Your task to perform on an android device: toggle data saver in the chrome app Image 0: 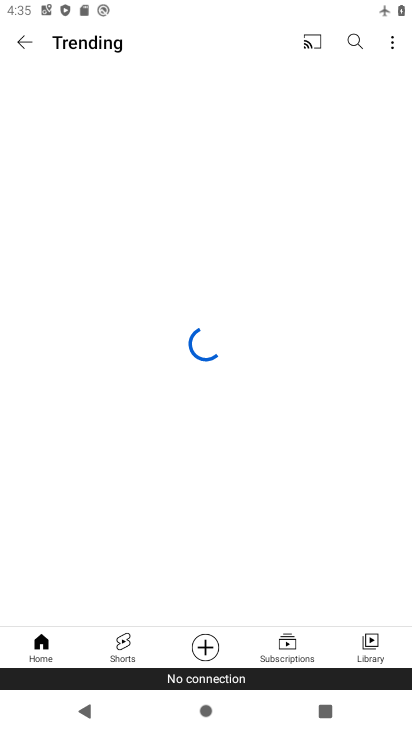
Step 0: press back button
Your task to perform on an android device: toggle data saver in the chrome app Image 1: 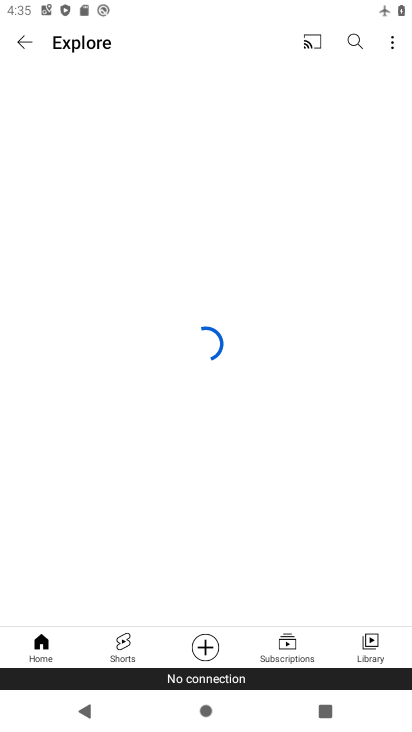
Step 1: press home button
Your task to perform on an android device: toggle data saver in the chrome app Image 2: 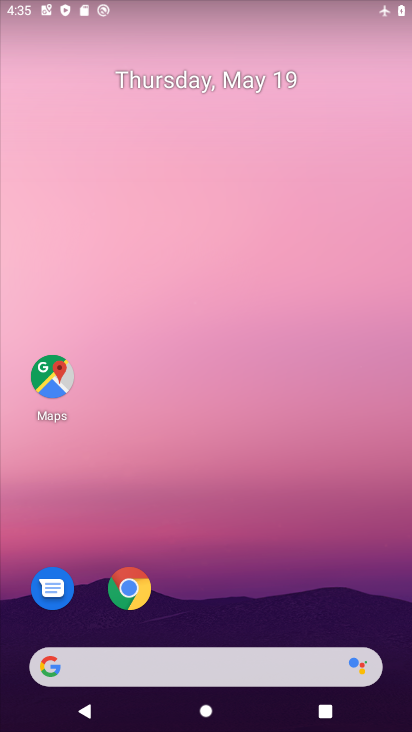
Step 2: click (145, 587)
Your task to perform on an android device: toggle data saver in the chrome app Image 3: 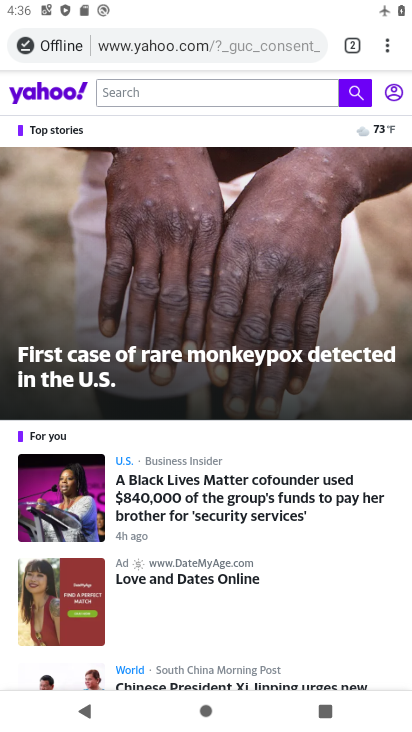
Step 3: click (383, 45)
Your task to perform on an android device: toggle data saver in the chrome app Image 4: 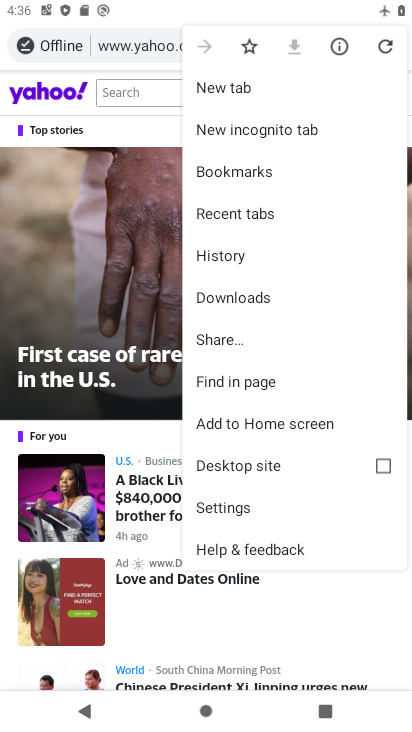
Step 4: click (234, 502)
Your task to perform on an android device: toggle data saver in the chrome app Image 5: 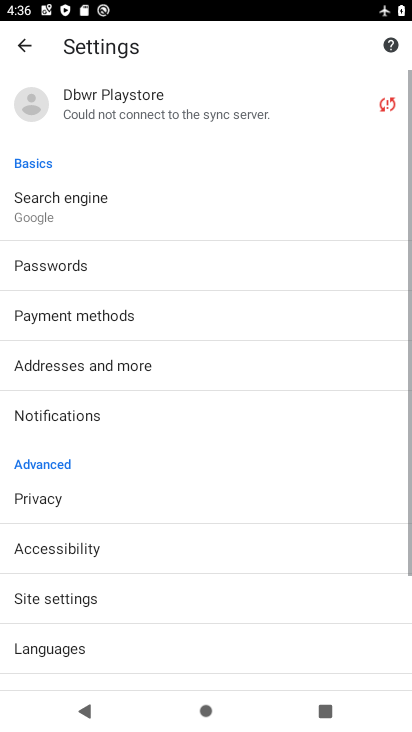
Step 5: drag from (159, 619) to (212, 403)
Your task to perform on an android device: toggle data saver in the chrome app Image 6: 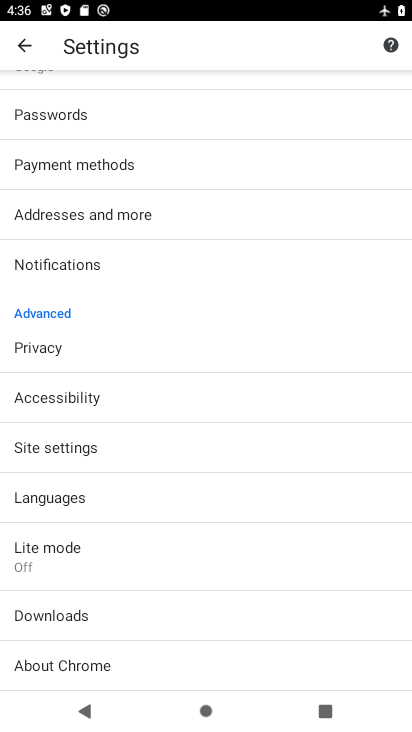
Step 6: click (82, 565)
Your task to perform on an android device: toggle data saver in the chrome app Image 7: 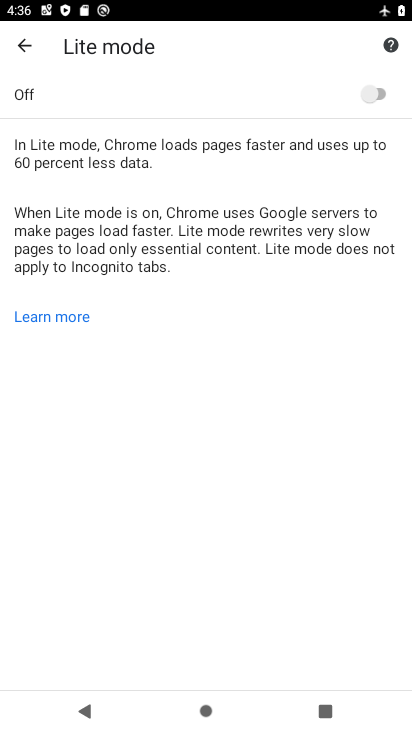
Step 7: click (383, 87)
Your task to perform on an android device: toggle data saver in the chrome app Image 8: 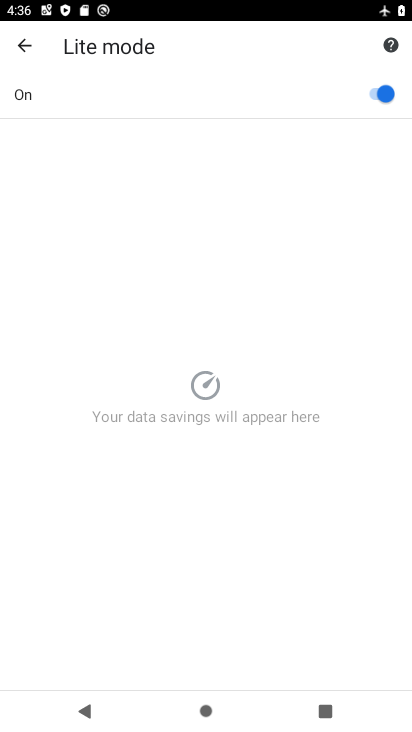
Step 8: task complete